Your task to perform on an android device: What is the recent news? Image 0: 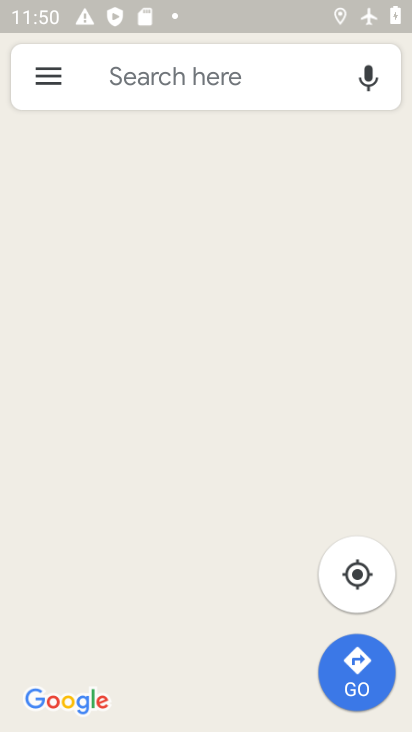
Step 0: press home button
Your task to perform on an android device: What is the recent news? Image 1: 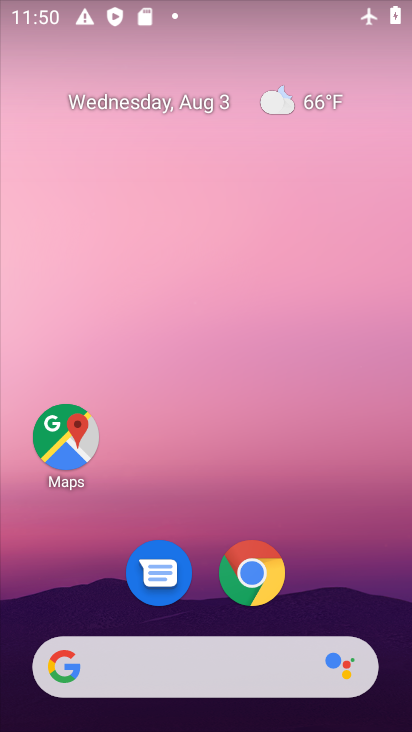
Step 1: drag from (372, 579) to (364, 147)
Your task to perform on an android device: What is the recent news? Image 2: 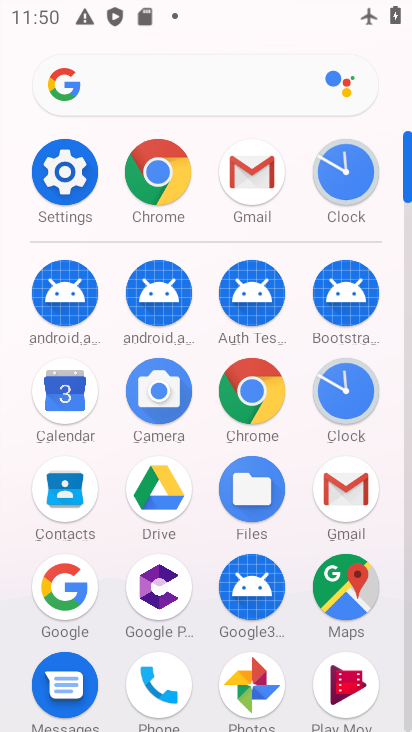
Step 2: click (257, 389)
Your task to perform on an android device: What is the recent news? Image 3: 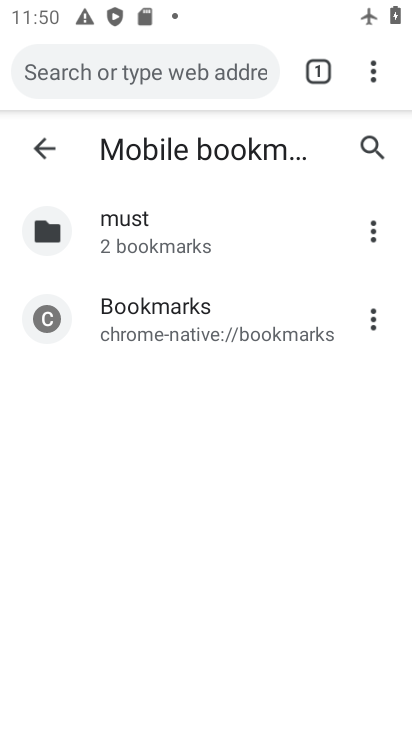
Step 3: click (232, 81)
Your task to perform on an android device: What is the recent news? Image 4: 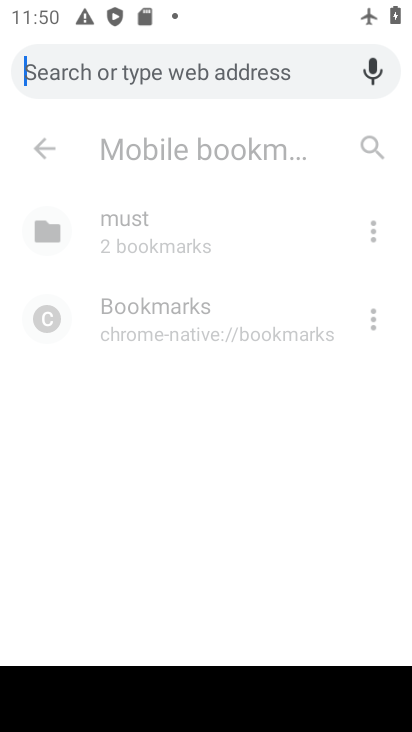
Step 4: type "news"
Your task to perform on an android device: What is the recent news? Image 5: 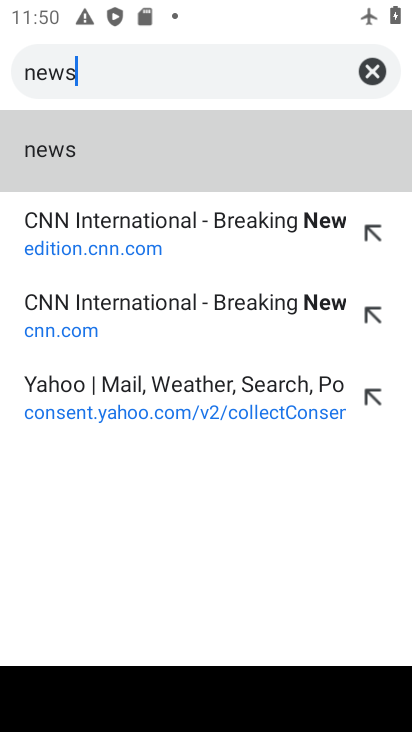
Step 5: click (68, 162)
Your task to perform on an android device: What is the recent news? Image 6: 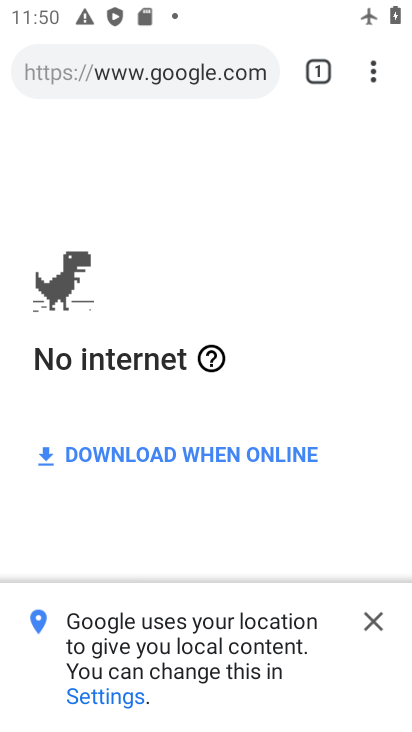
Step 6: task complete